Your task to perform on an android device: show emergency info Image 0: 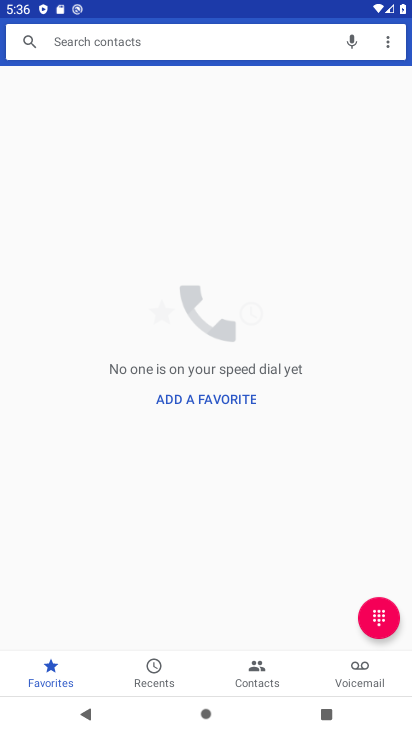
Step 0: press home button
Your task to perform on an android device: show emergency info Image 1: 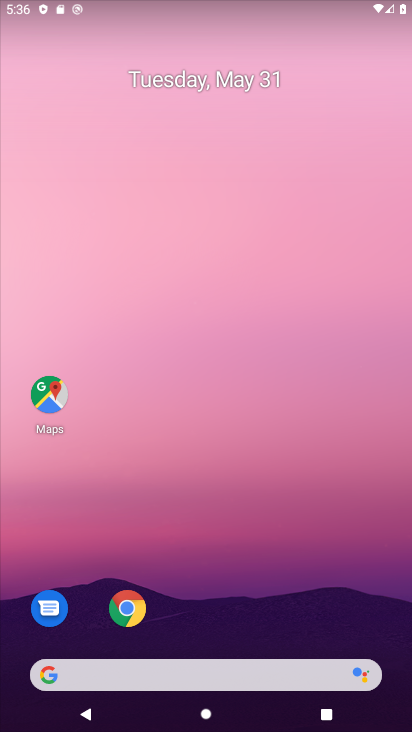
Step 1: drag from (169, 659) to (184, 292)
Your task to perform on an android device: show emergency info Image 2: 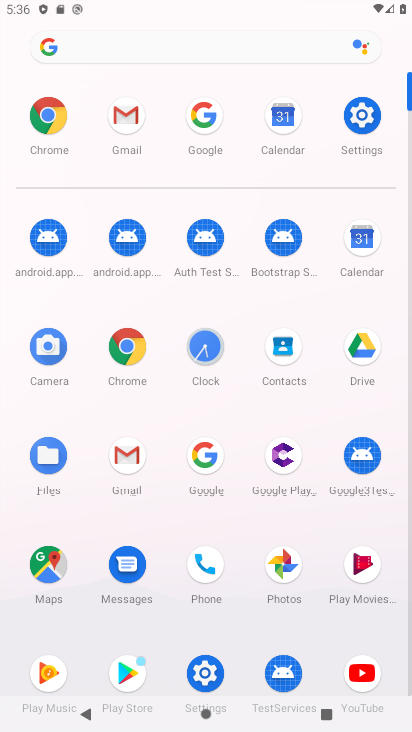
Step 2: click (360, 122)
Your task to perform on an android device: show emergency info Image 3: 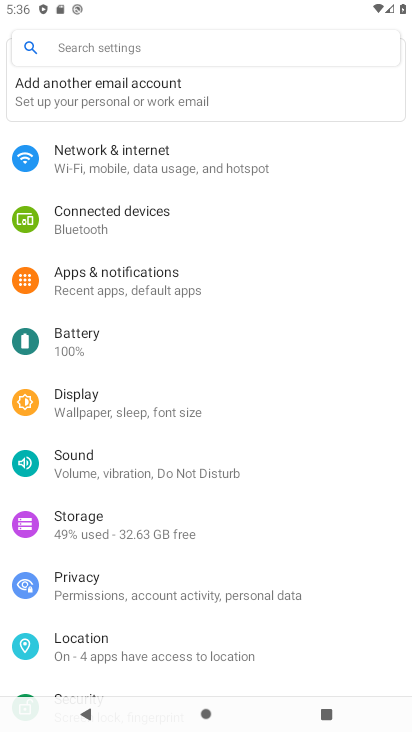
Step 3: drag from (178, 629) to (163, 296)
Your task to perform on an android device: show emergency info Image 4: 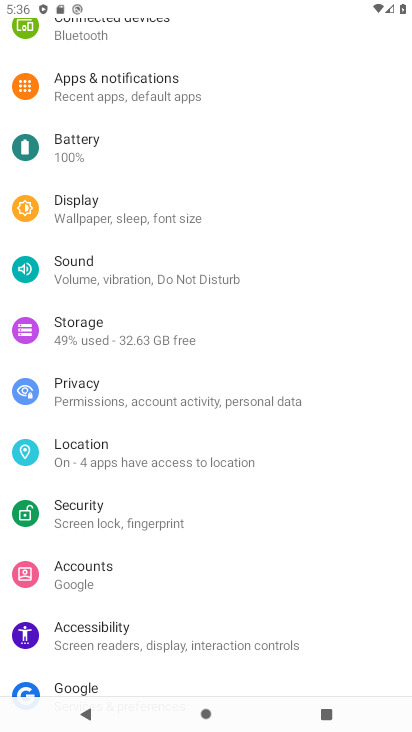
Step 4: drag from (179, 637) to (174, 332)
Your task to perform on an android device: show emergency info Image 5: 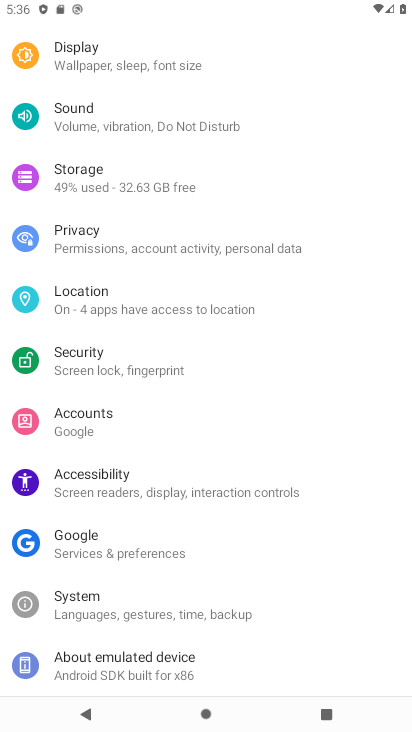
Step 5: click (130, 675)
Your task to perform on an android device: show emergency info Image 6: 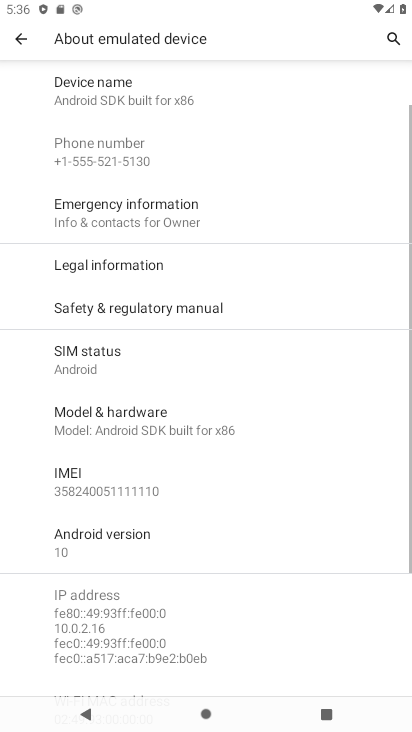
Step 6: click (136, 209)
Your task to perform on an android device: show emergency info Image 7: 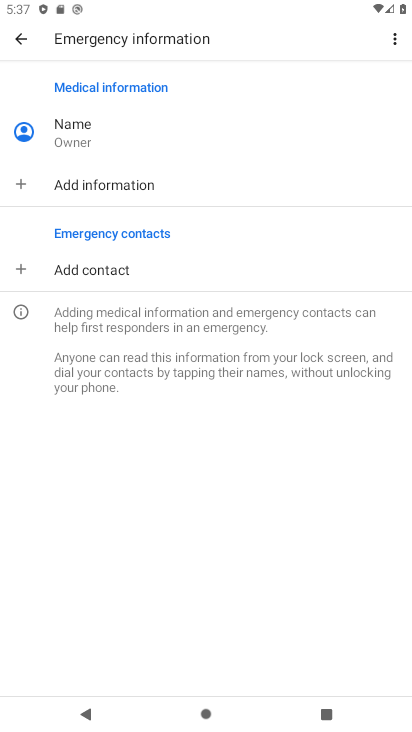
Step 7: task complete